Your task to perform on an android device: turn off airplane mode Image 0: 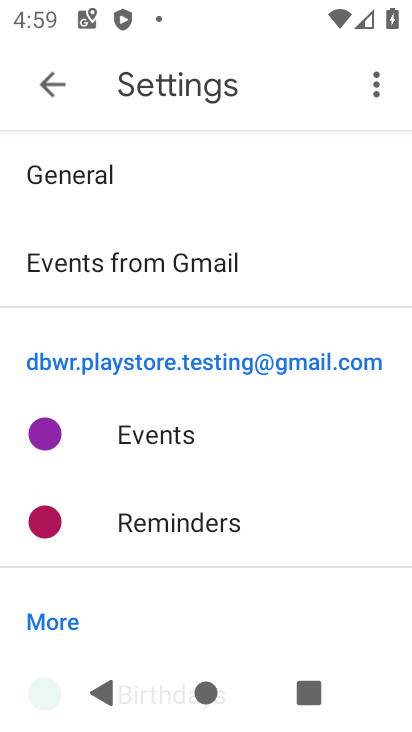
Step 0: press home button
Your task to perform on an android device: turn off airplane mode Image 1: 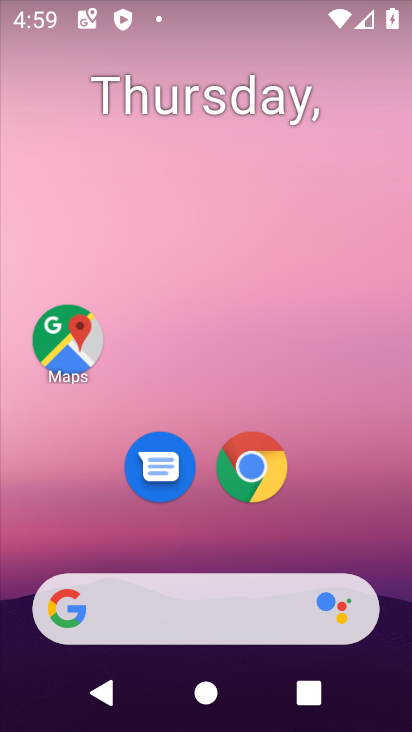
Step 1: task complete